Your task to perform on an android device: Open settings on Google Maps Image 0: 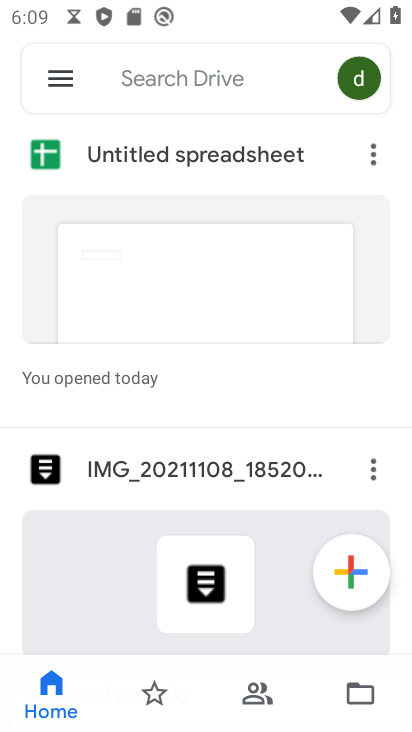
Step 0: press home button
Your task to perform on an android device: Open settings on Google Maps Image 1: 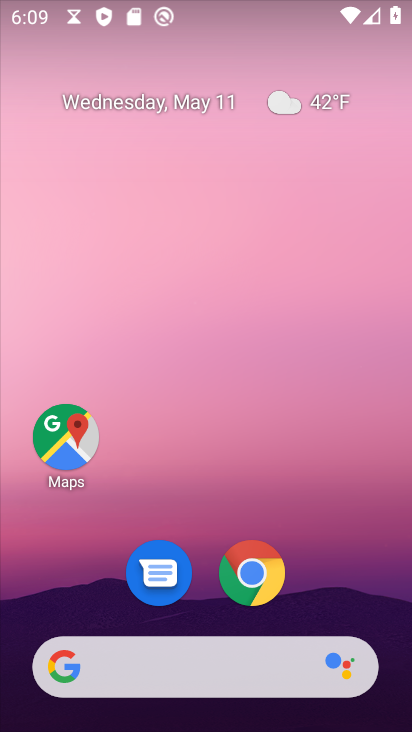
Step 1: click (74, 443)
Your task to perform on an android device: Open settings on Google Maps Image 2: 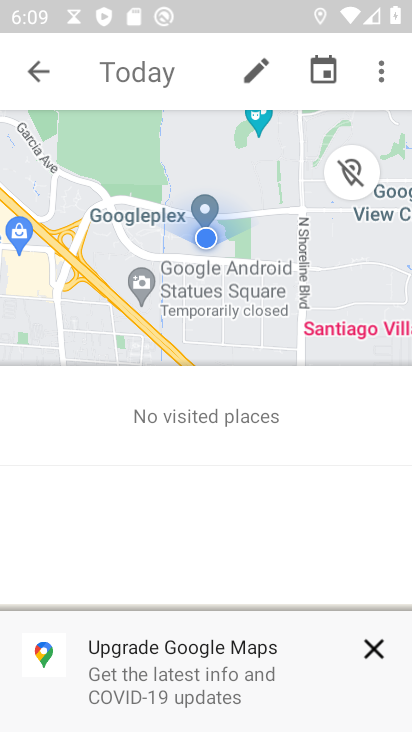
Step 2: task complete